Your task to perform on an android device: Go to display settings Image 0: 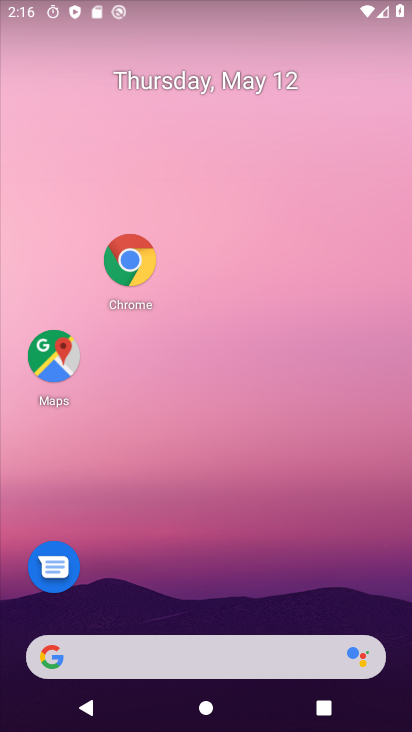
Step 0: drag from (197, 633) to (268, 206)
Your task to perform on an android device: Go to display settings Image 1: 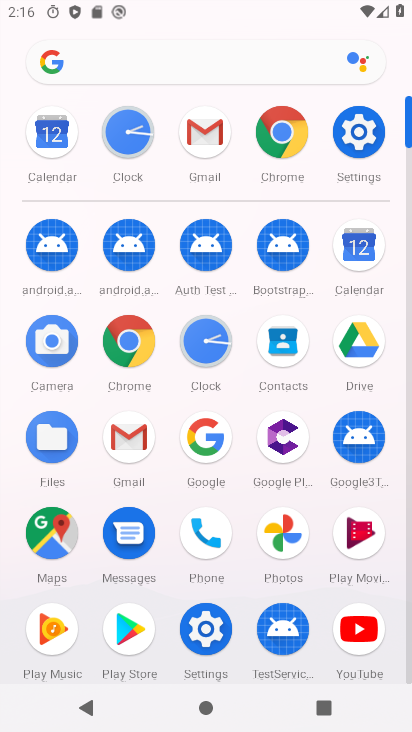
Step 1: click (371, 136)
Your task to perform on an android device: Go to display settings Image 2: 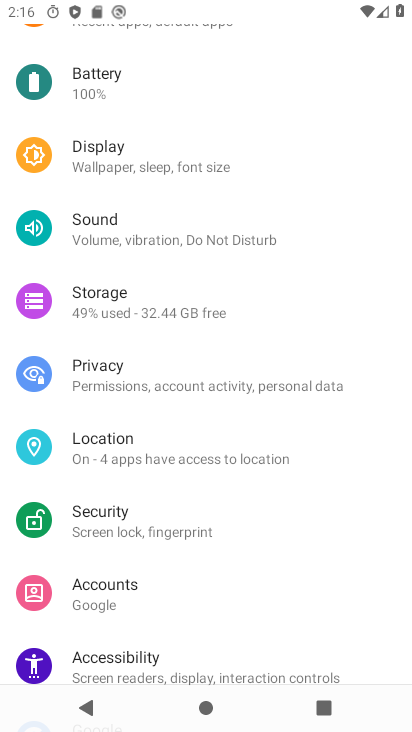
Step 2: click (104, 164)
Your task to perform on an android device: Go to display settings Image 3: 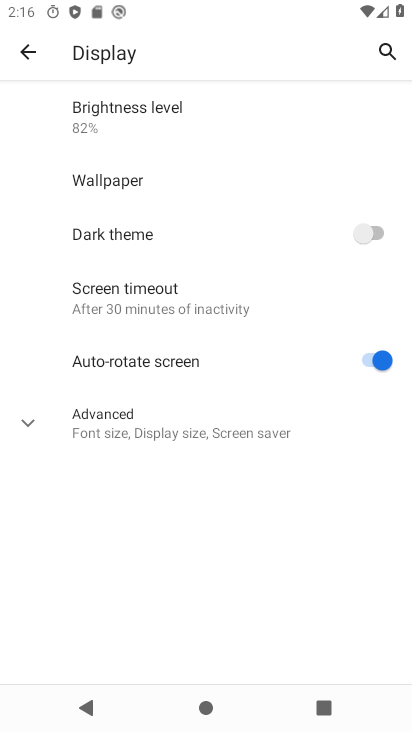
Step 3: click (139, 437)
Your task to perform on an android device: Go to display settings Image 4: 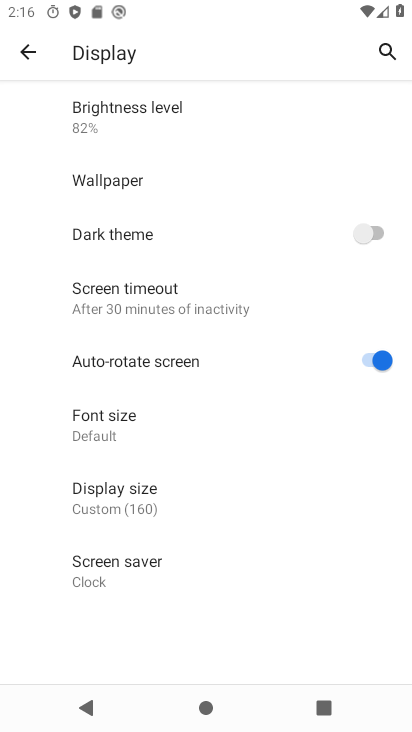
Step 4: task complete